Your task to perform on an android device: What's on my calendar today? Image 0: 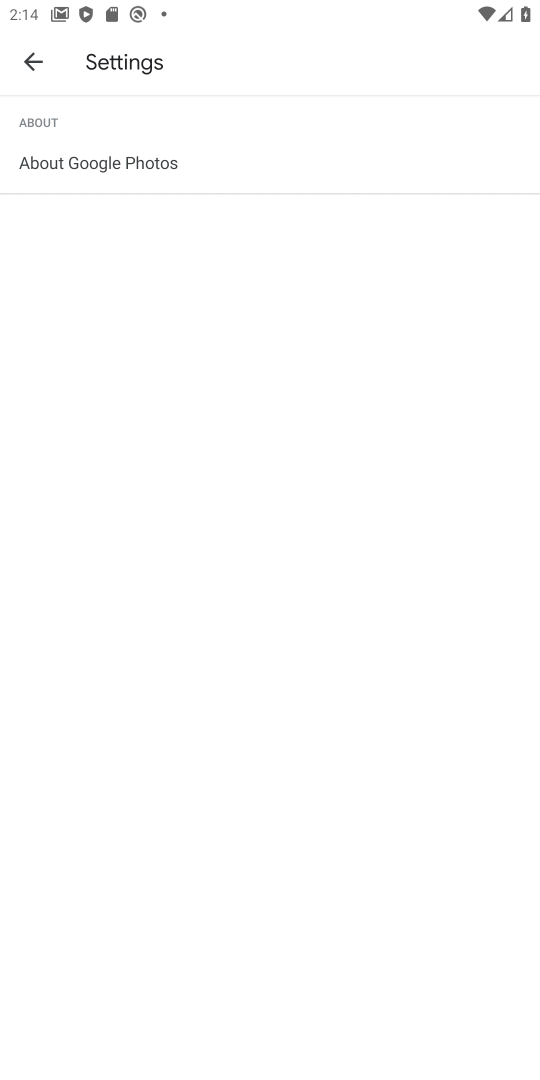
Step 0: press home button
Your task to perform on an android device: What's on my calendar today? Image 1: 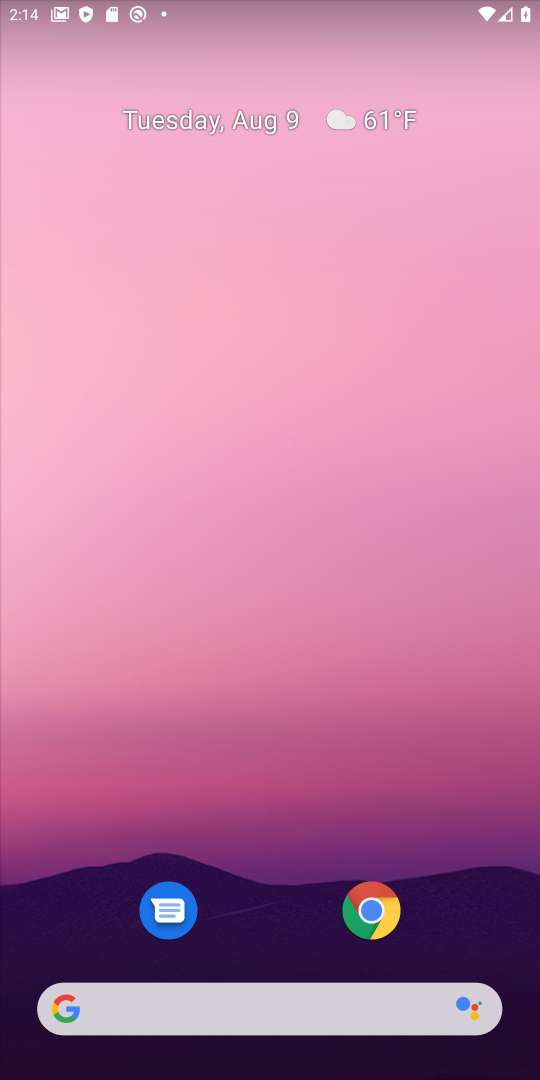
Step 1: drag from (138, 725) to (159, 189)
Your task to perform on an android device: What's on my calendar today? Image 2: 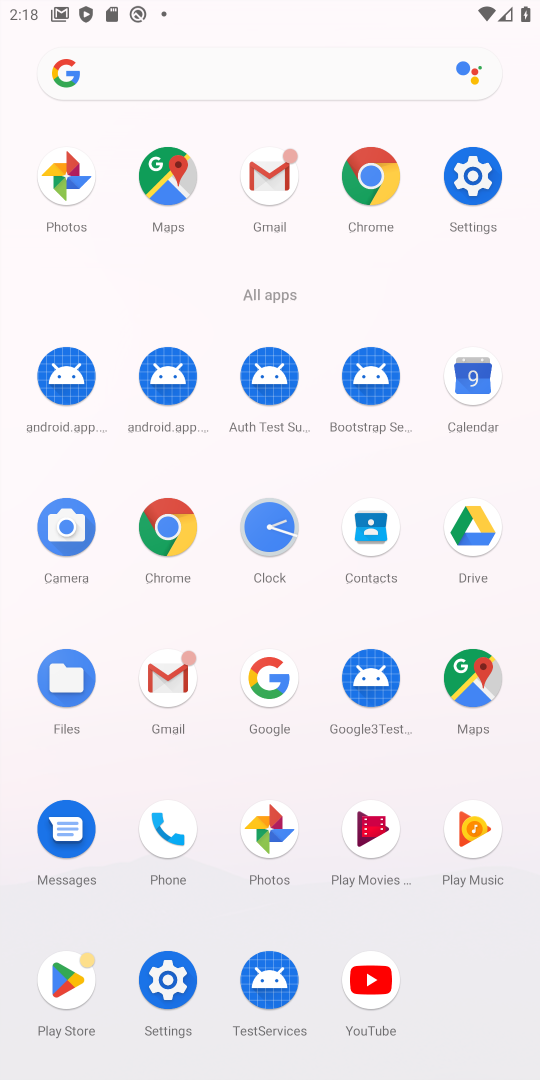
Step 2: click (476, 377)
Your task to perform on an android device: What's on my calendar today? Image 3: 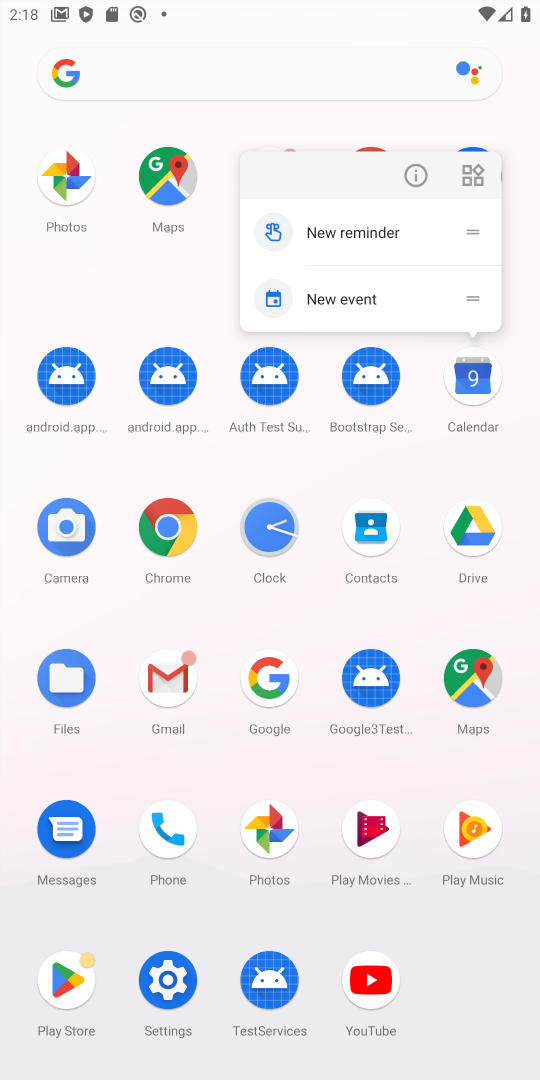
Step 3: click (481, 391)
Your task to perform on an android device: What's on my calendar today? Image 4: 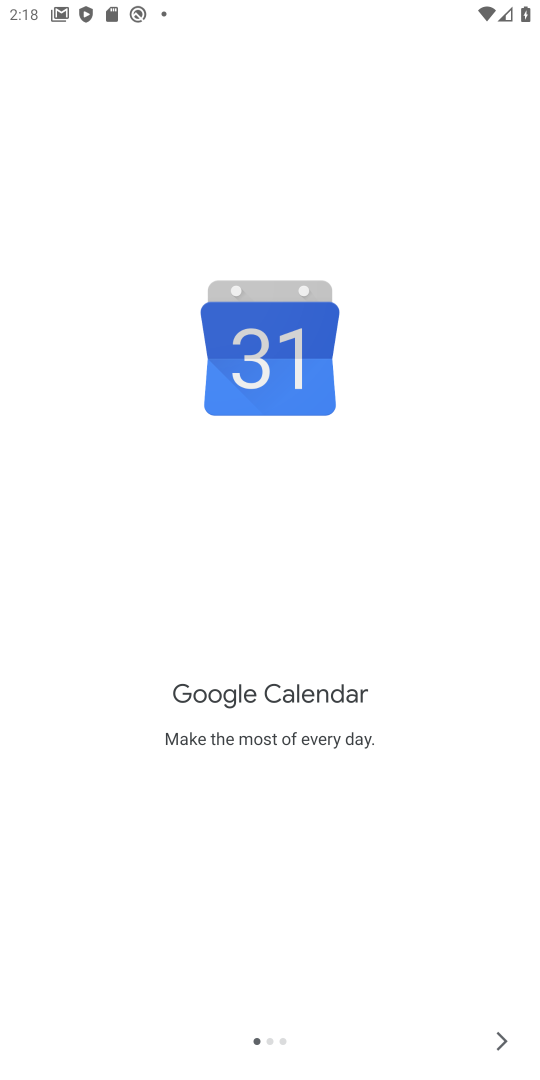
Step 4: click (483, 1028)
Your task to perform on an android device: What's on my calendar today? Image 5: 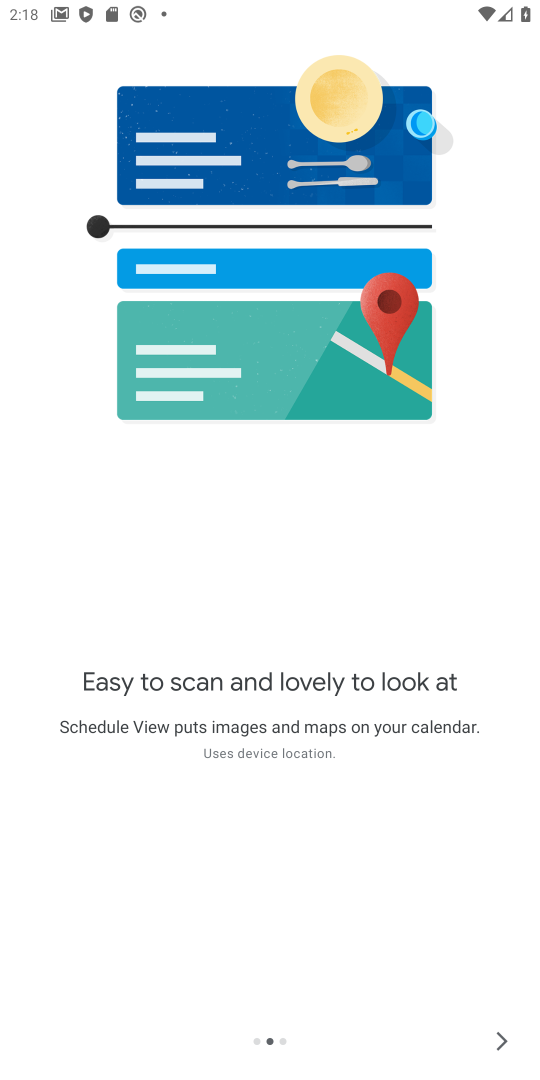
Step 5: click (491, 1020)
Your task to perform on an android device: What's on my calendar today? Image 6: 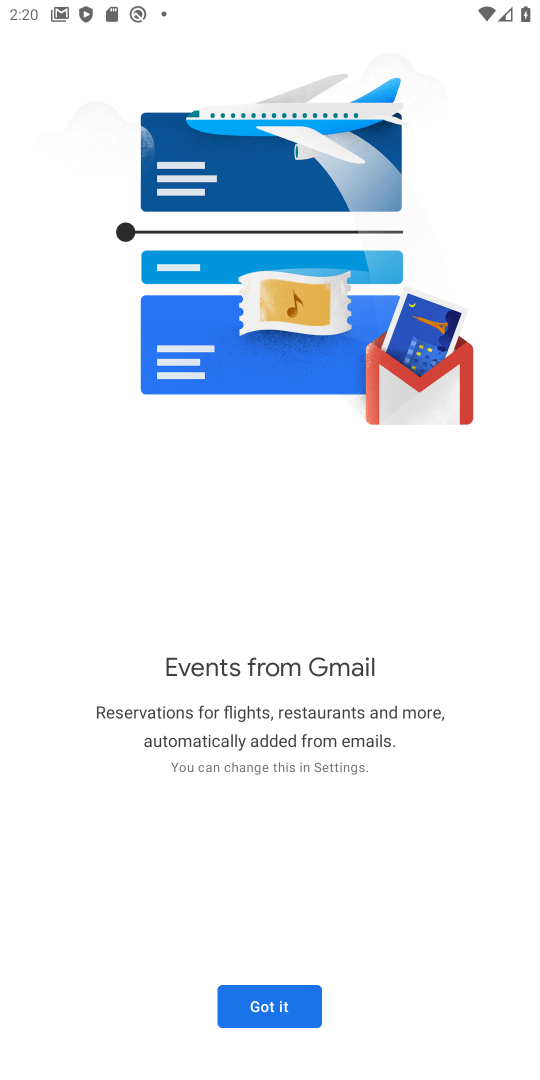
Step 6: click (288, 1005)
Your task to perform on an android device: What's on my calendar today? Image 7: 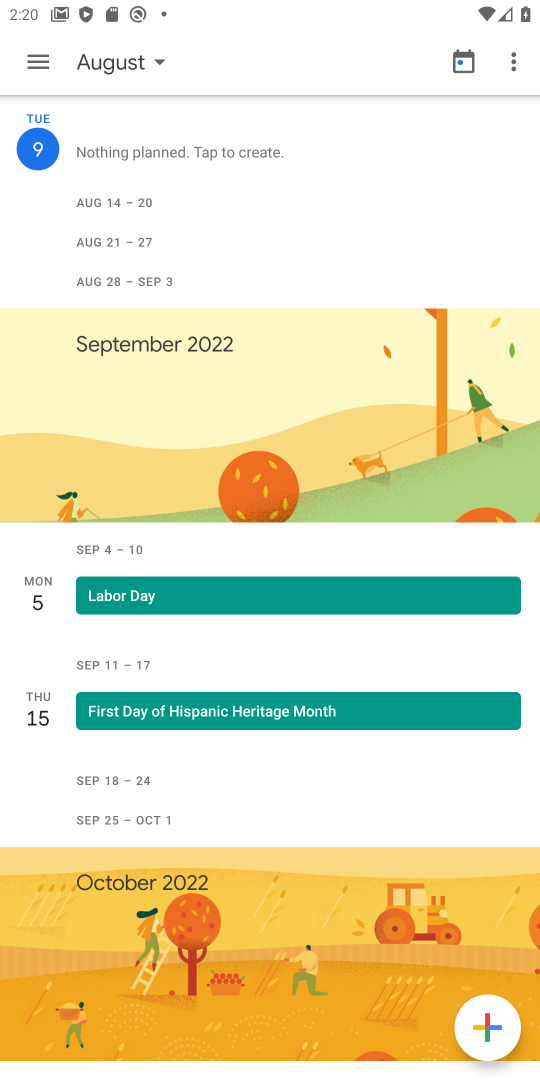
Step 7: click (123, 70)
Your task to perform on an android device: What's on my calendar today? Image 8: 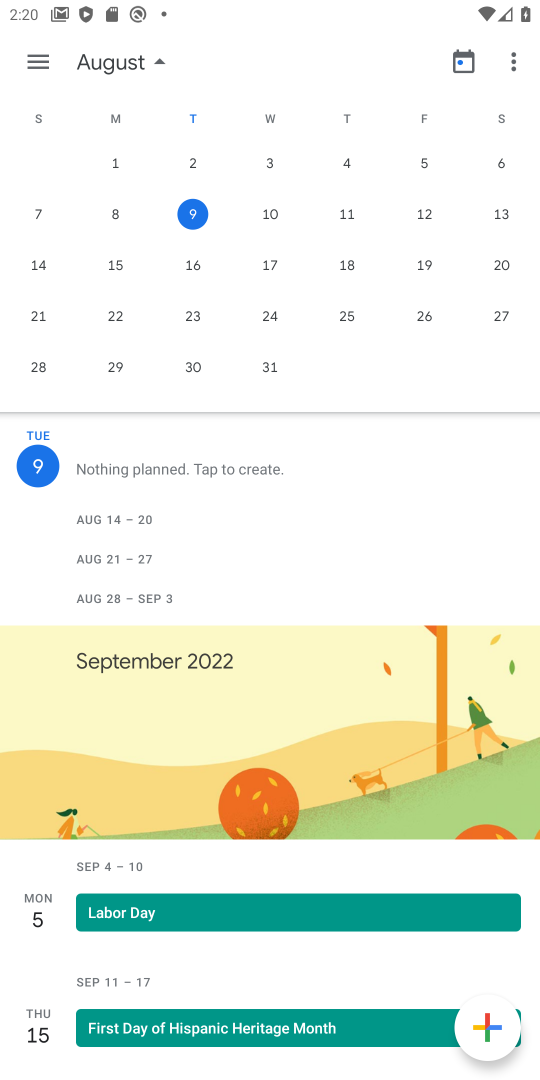
Step 8: click (198, 213)
Your task to perform on an android device: What's on my calendar today? Image 9: 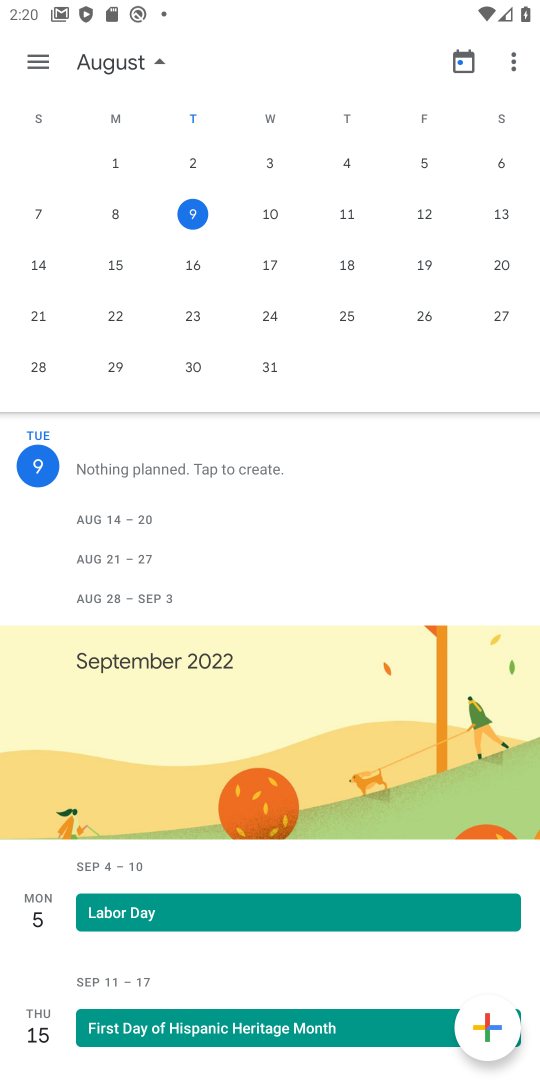
Step 9: task complete